Your task to perform on an android device: toggle show notifications on the lock screen Image 0: 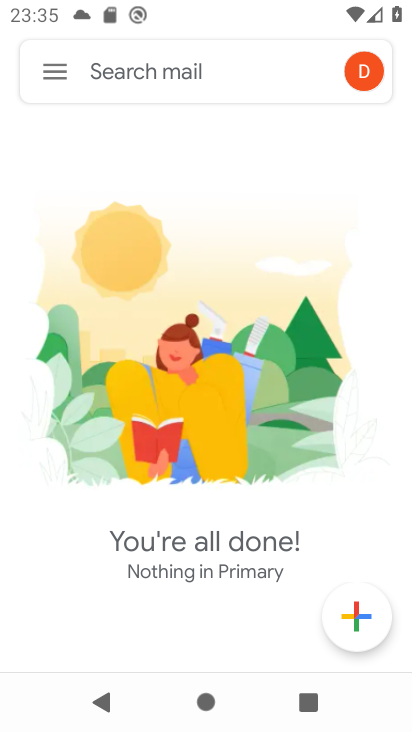
Step 0: press home button
Your task to perform on an android device: toggle show notifications on the lock screen Image 1: 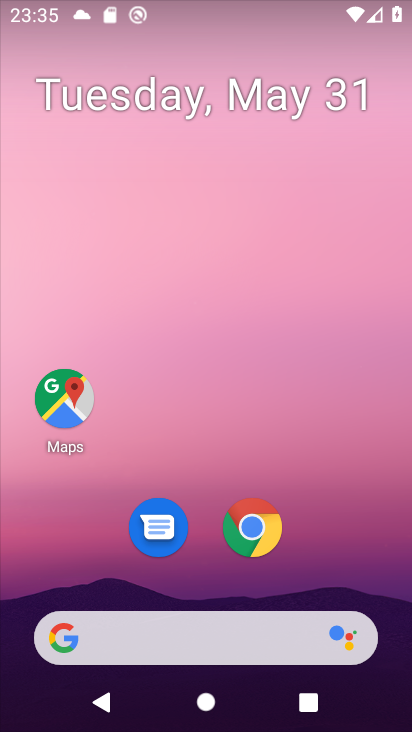
Step 1: drag from (364, 421) to (258, 56)
Your task to perform on an android device: toggle show notifications on the lock screen Image 2: 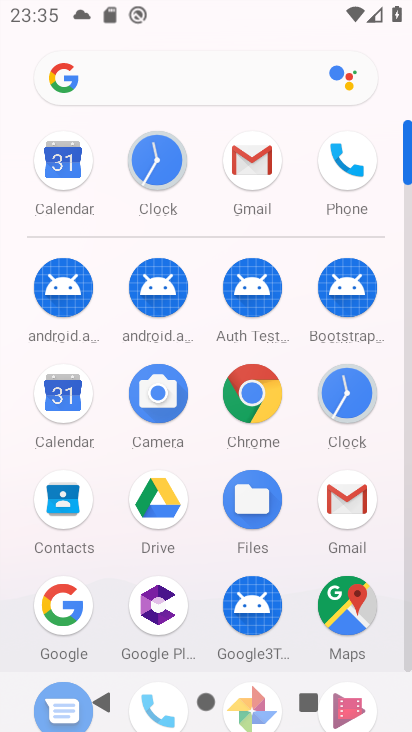
Step 2: drag from (301, 552) to (267, 156)
Your task to perform on an android device: toggle show notifications on the lock screen Image 3: 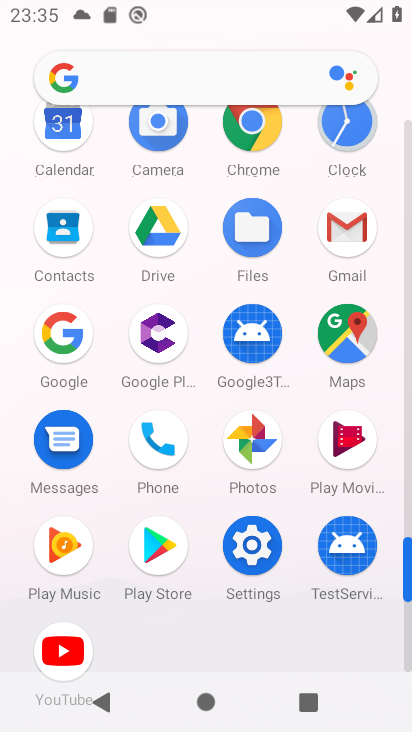
Step 3: click (260, 552)
Your task to perform on an android device: toggle show notifications on the lock screen Image 4: 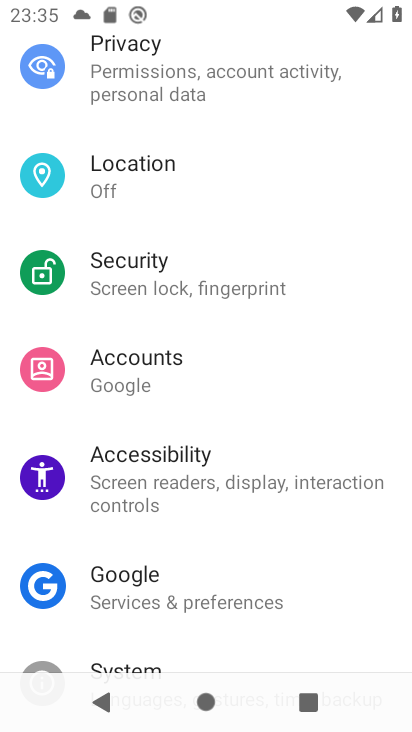
Step 4: drag from (246, 210) to (246, 671)
Your task to perform on an android device: toggle show notifications on the lock screen Image 5: 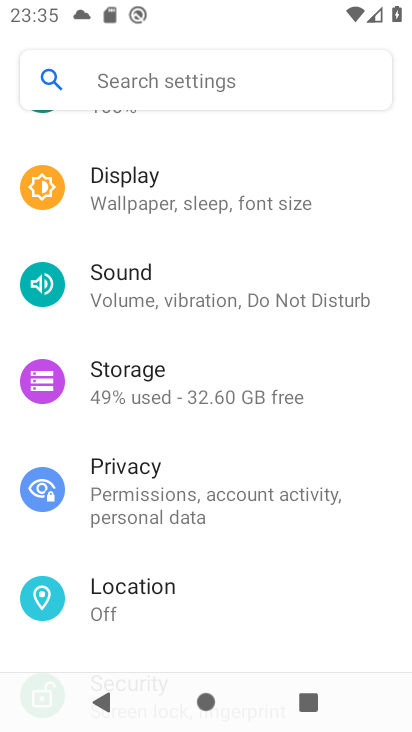
Step 5: drag from (214, 297) to (216, 560)
Your task to perform on an android device: toggle show notifications on the lock screen Image 6: 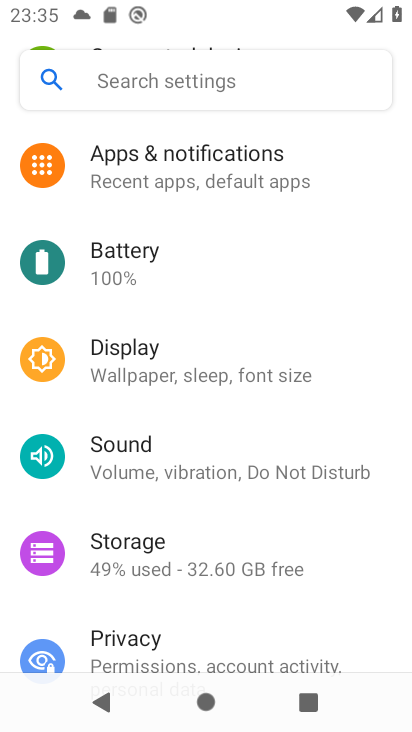
Step 6: click (187, 169)
Your task to perform on an android device: toggle show notifications on the lock screen Image 7: 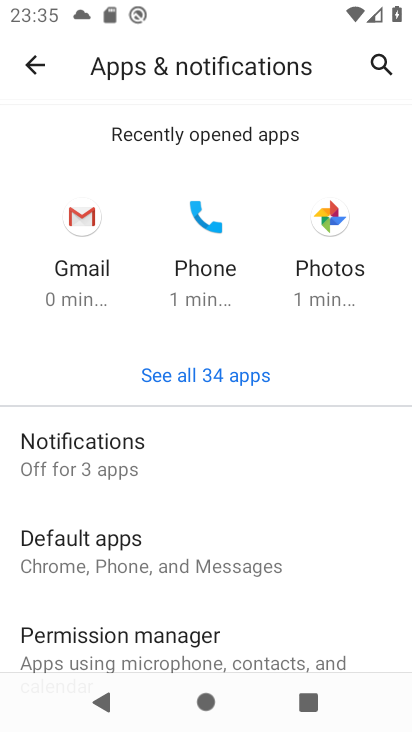
Step 7: click (205, 459)
Your task to perform on an android device: toggle show notifications on the lock screen Image 8: 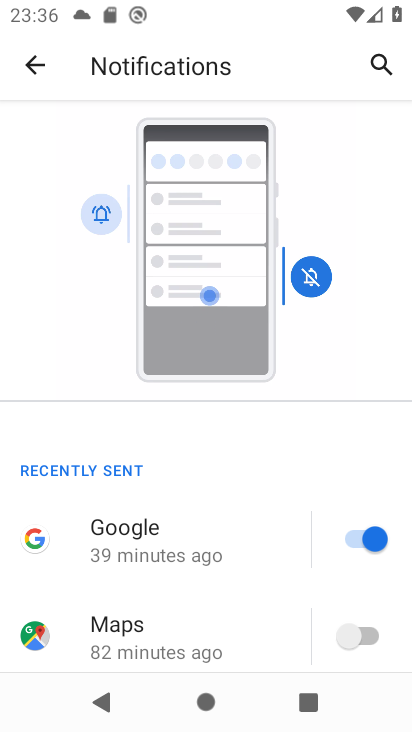
Step 8: drag from (225, 555) to (227, 14)
Your task to perform on an android device: toggle show notifications on the lock screen Image 9: 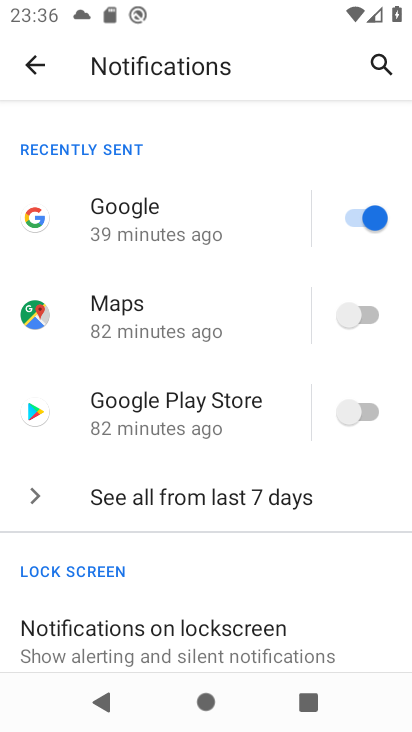
Step 9: click (250, 626)
Your task to perform on an android device: toggle show notifications on the lock screen Image 10: 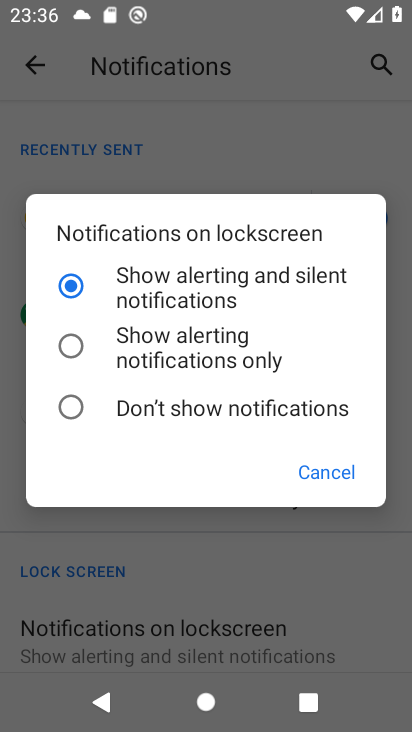
Step 10: click (141, 410)
Your task to perform on an android device: toggle show notifications on the lock screen Image 11: 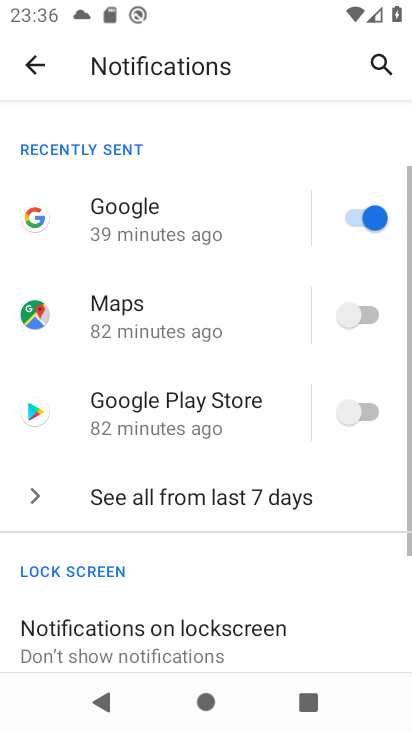
Step 11: task complete